Your task to perform on an android device: open the mobile data screen to see how much data has been used Image 0: 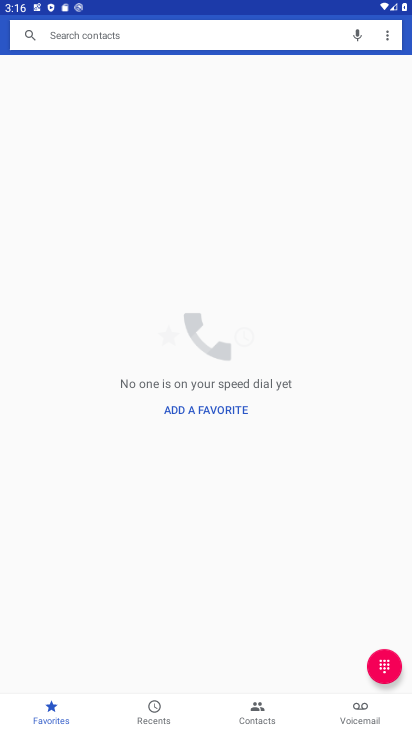
Step 0: press home button
Your task to perform on an android device: open the mobile data screen to see how much data has been used Image 1: 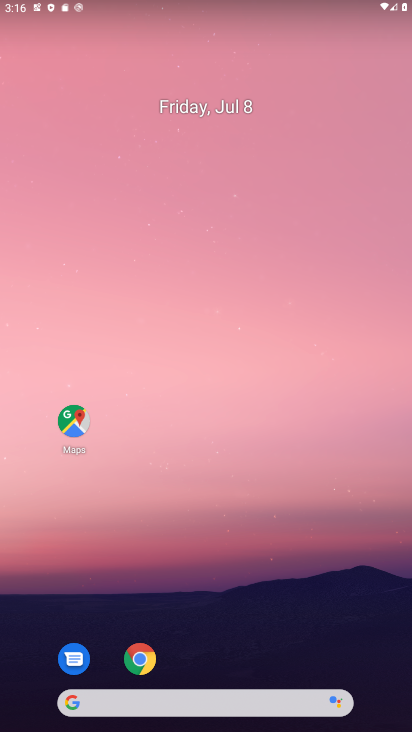
Step 1: drag from (221, 654) to (241, 211)
Your task to perform on an android device: open the mobile data screen to see how much data has been used Image 2: 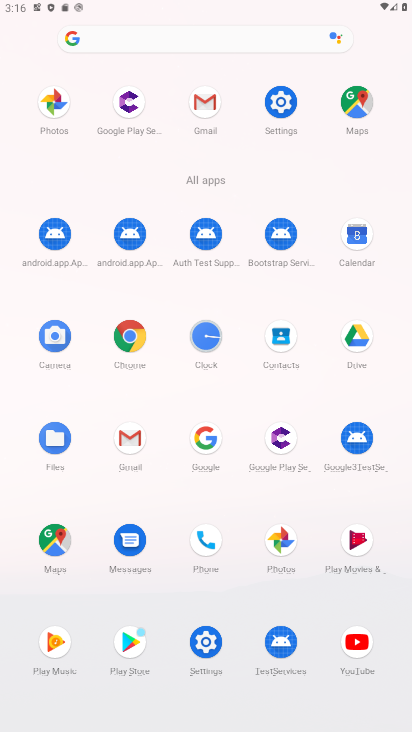
Step 2: click (265, 105)
Your task to perform on an android device: open the mobile data screen to see how much data has been used Image 3: 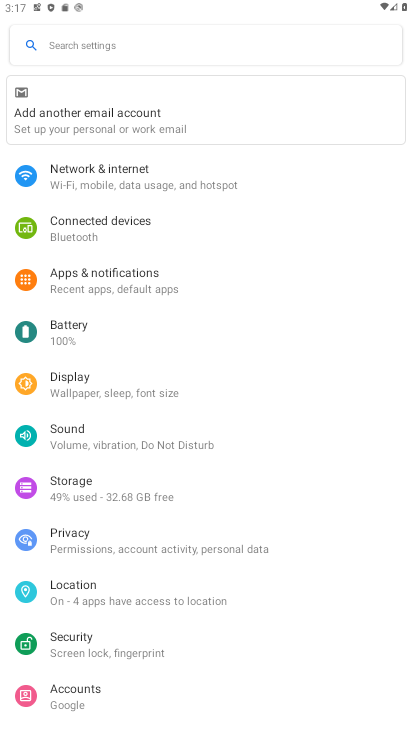
Step 3: click (136, 189)
Your task to perform on an android device: open the mobile data screen to see how much data has been used Image 4: 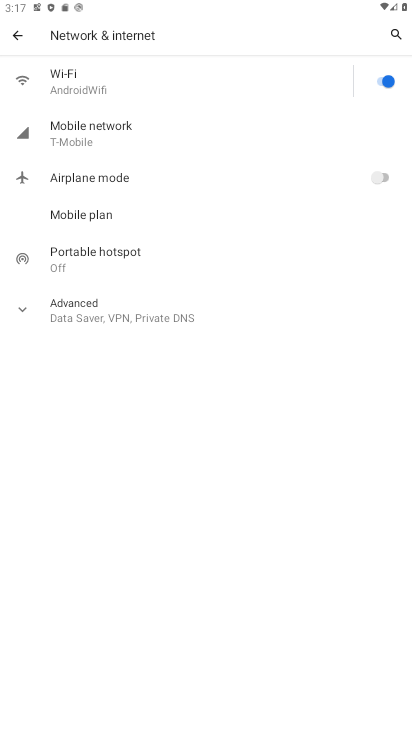
Step 4: click (126, 139)
Your task to perform on an android device: open the mobile data screen to see how much data has been used Image 5: 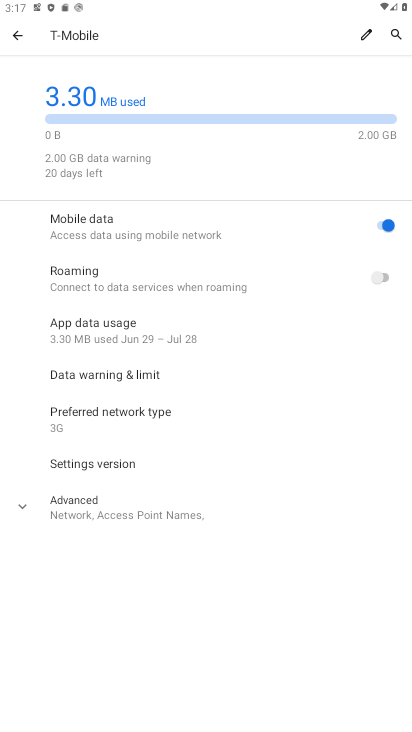
Step 5: click (149, 334)
Your task to perform on an android device: open the mobile data screen to see how much data has been used Image 6: 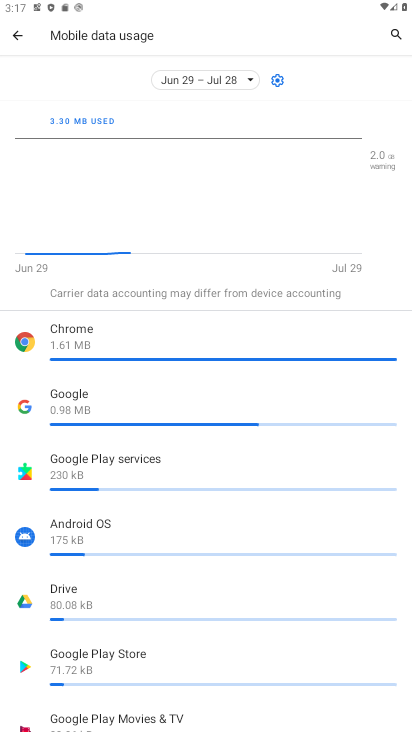
Step 6: task complete